Your task to perform on an android device: Check the weather Image 0: 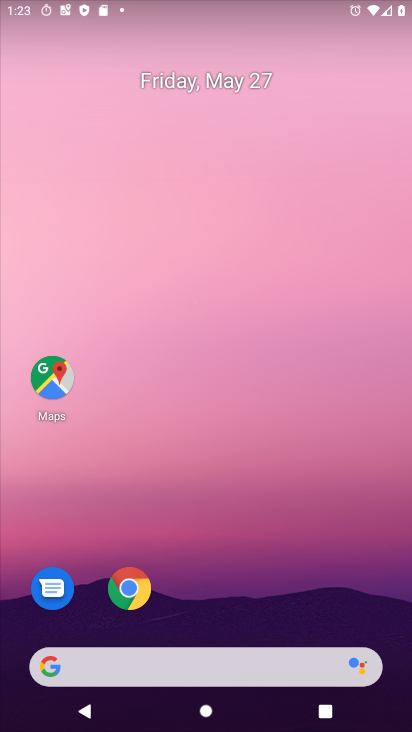
Step 0: press home button
Your task to perform on an android device: Check the weather Image 1: 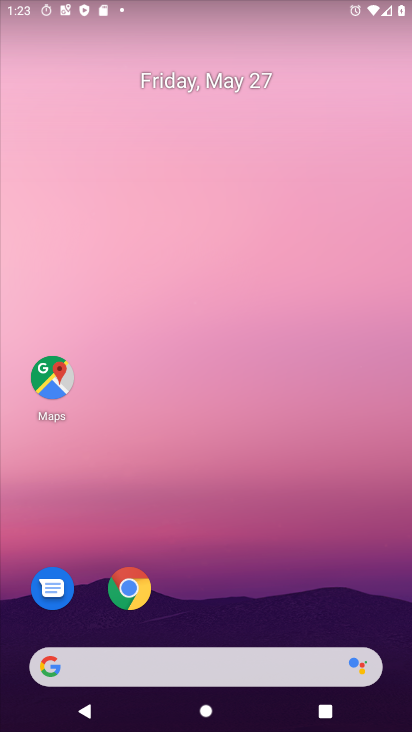
Step 1: drag from (9, 261) to (387, 230)
Your task to perform on an android device: Check the weather Image 2: 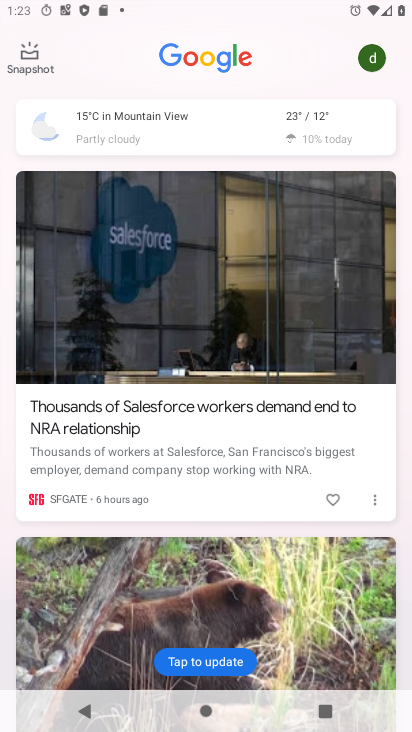
Step 2: click (256, 123)
Your task to perform on an android device: Check the weather Image 3: 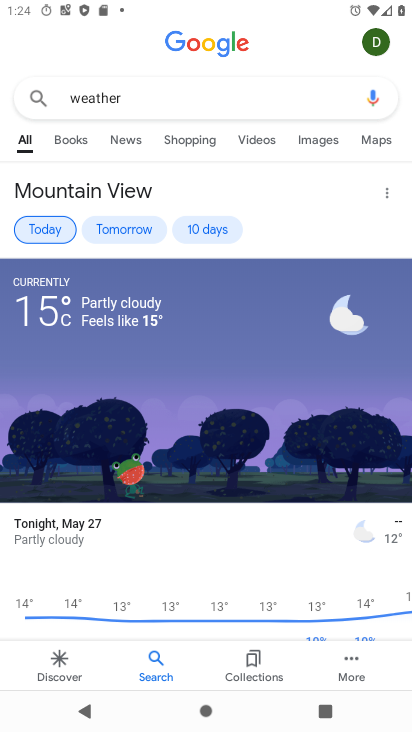
Step 3: task complete